Your task to perform on an android device: turn pop-ups off in chrome Image 0: 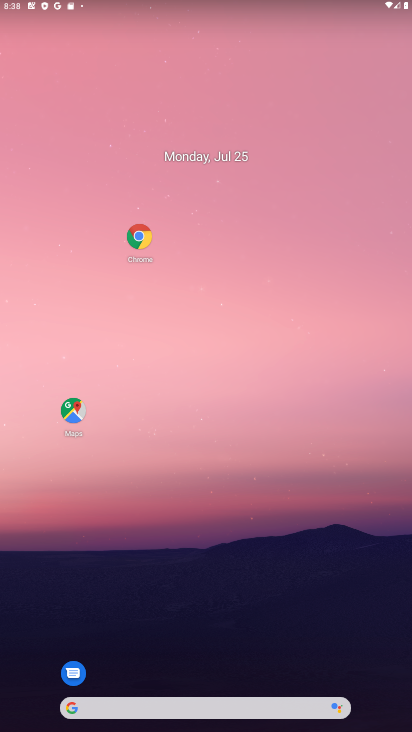
Step 0: click (130, 225)
Your task to perform on an android device: turn pop-ups off in chrome Image 1: 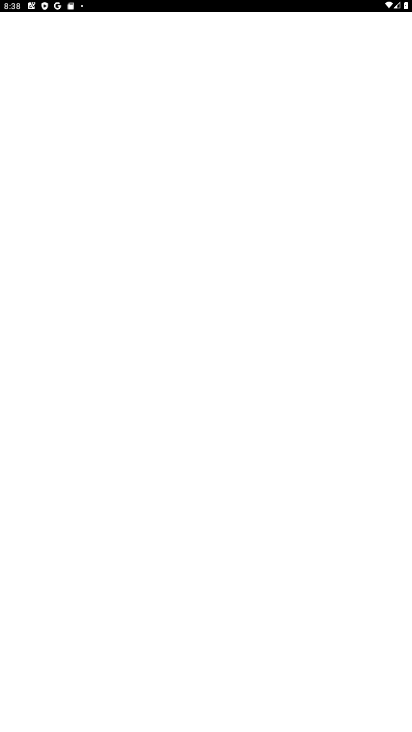
Step 1: task complete